Your task to perform on an android device: Add razer deathadder to the cart on costco, then select checkout. Image 0: 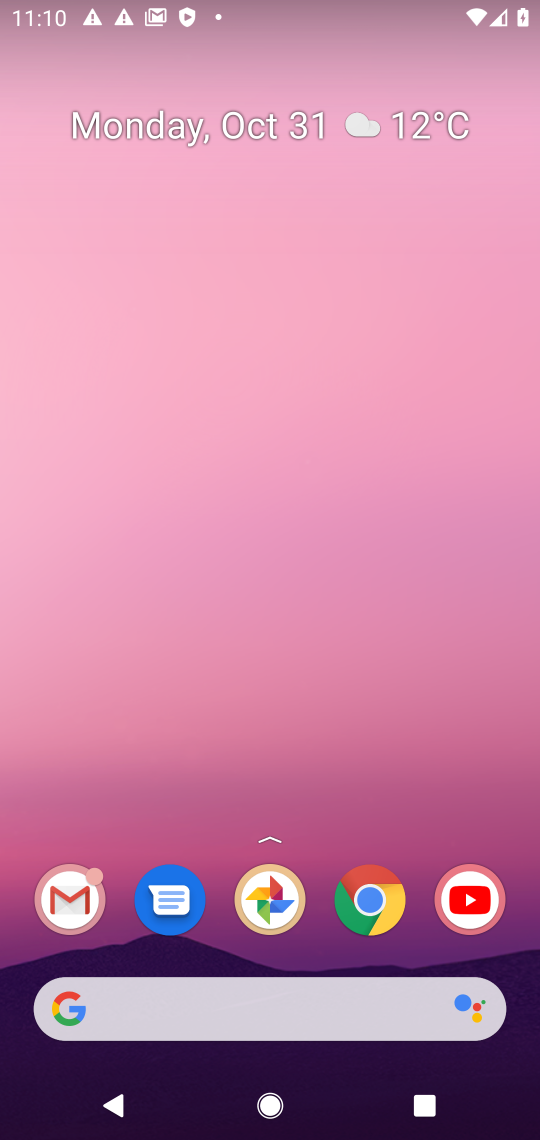
Step 0: click (266, 1004)
Your task to perform on an android device: Add razer deathadder to the cart on costco, then select checkout. Image 1: 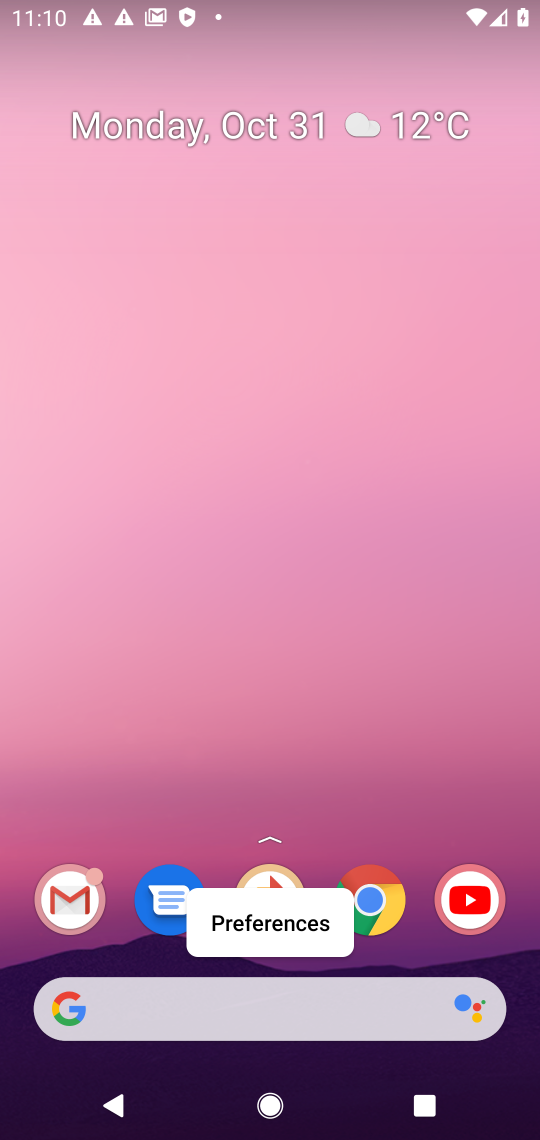
Step 1: click (266, 1004)
Your task to perform on an android device: Add razer deathadder to the cart on costco, then select checkout. Image 2: 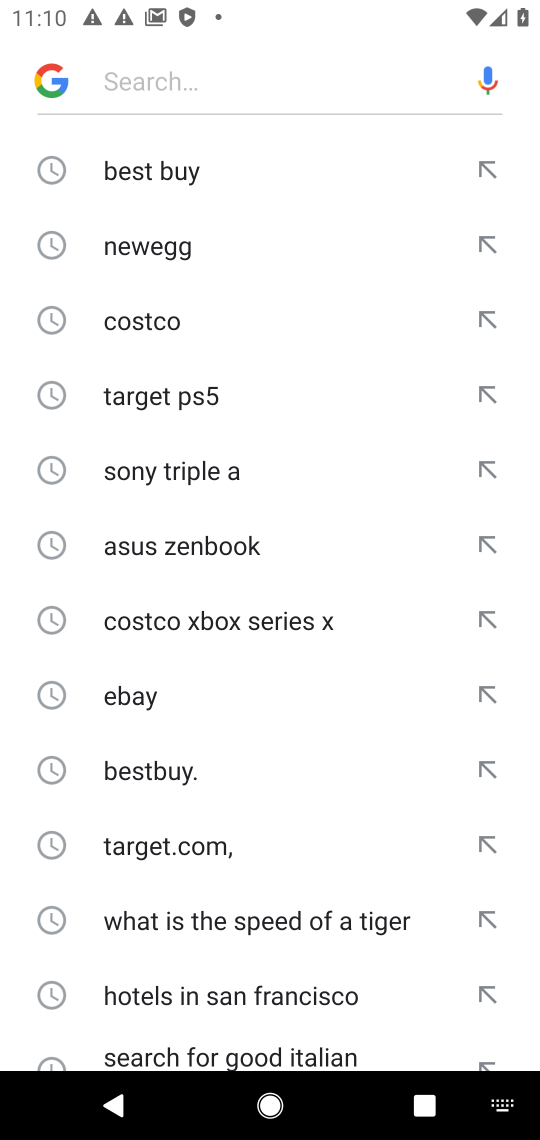
Step 2: click (163, 323)
Your task to perform on an android device: Add razer deathadder to the cart on costco, then select checkout. Image 3: 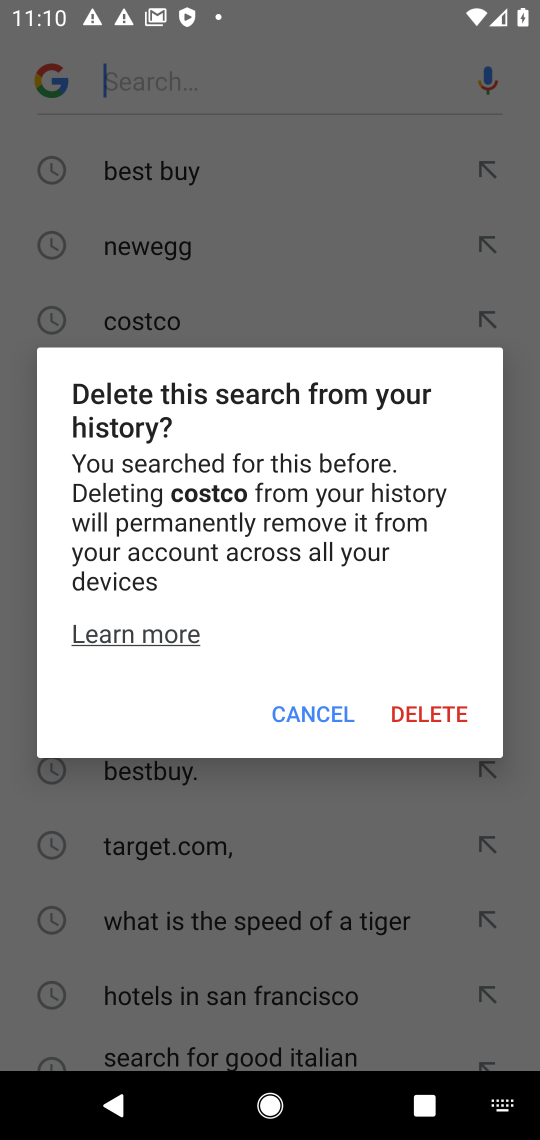
Step 3: click (332, 706)
Your task to perform on an android device: Add razer deathadder to the cart on costco, then select checkout. Image 4: 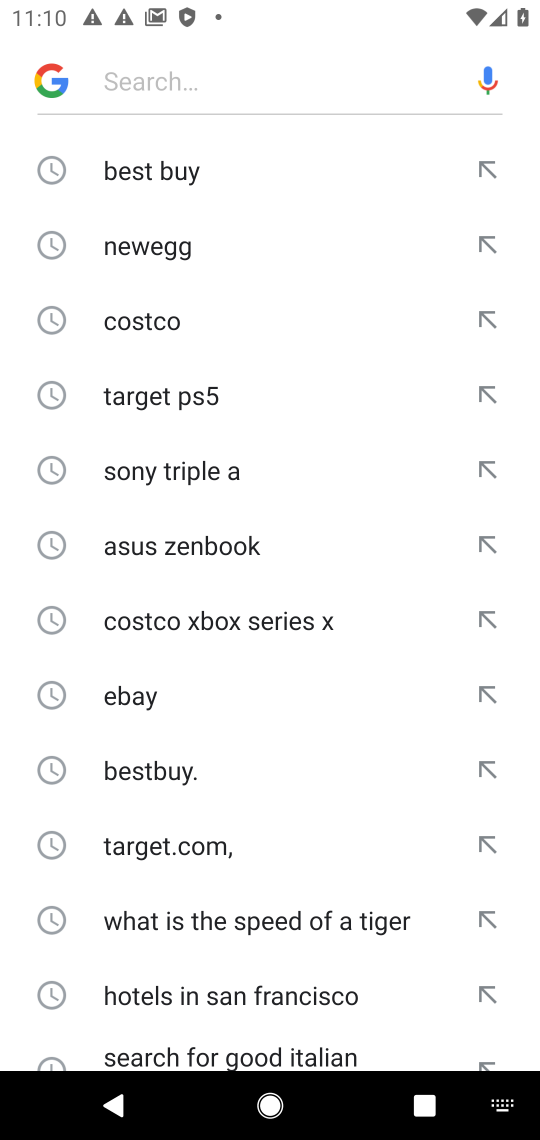
Step 4: click (138, 339)
Your task to perform on an android device: Add razer deathadder to the cart on costco, then select checkout. Image 5: 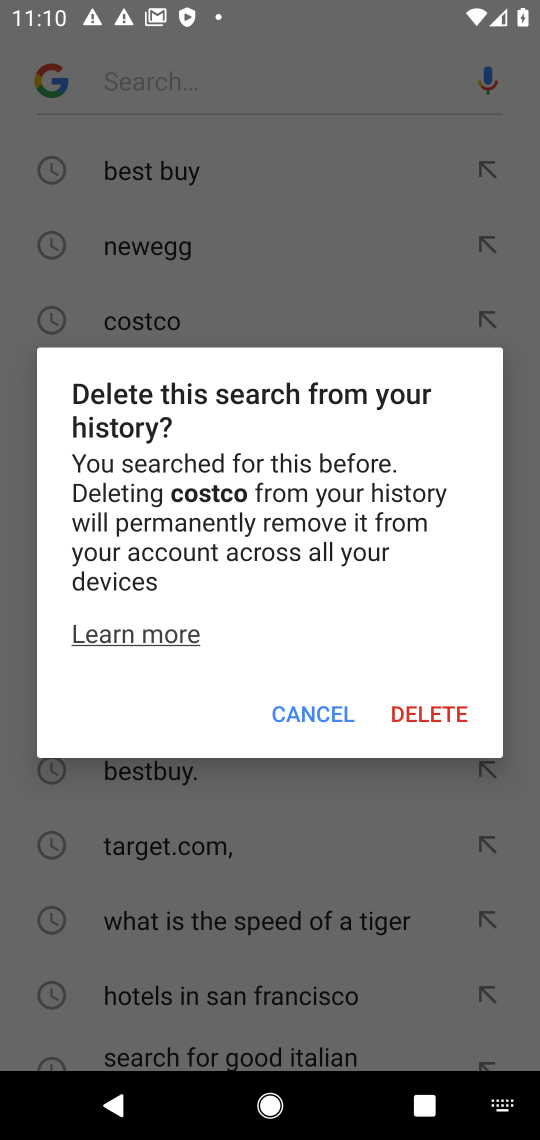
Step 5: click (333, 705)
Your task to perform on an android device: Add razer deathadder to the cart on costco, then select checkout. Image 6: 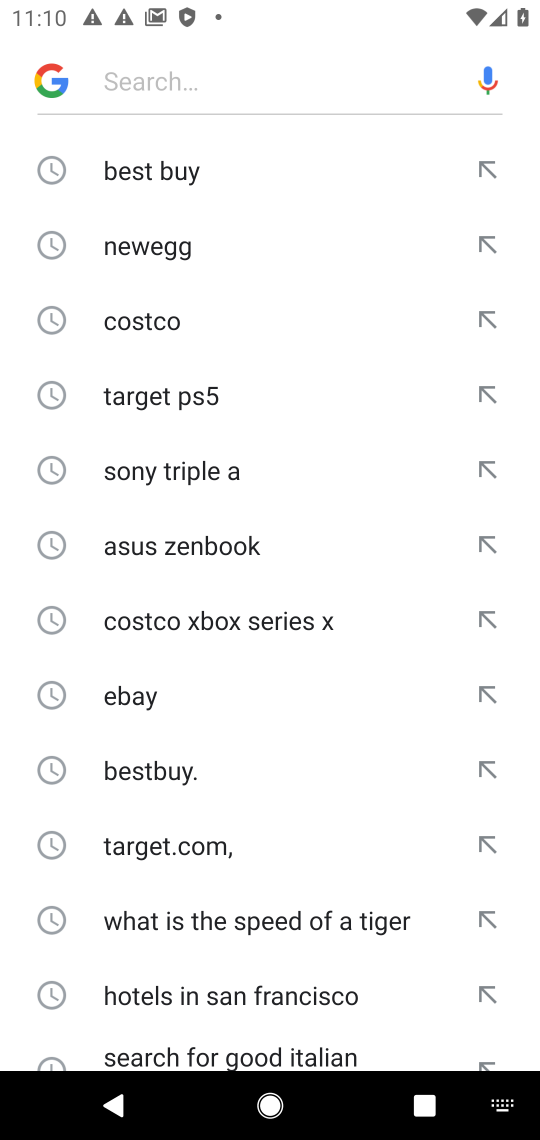
Step 6: click (174, 326)
Your task to perform on an android device: Add razer deathadder to the cart on costco, then select checkout. Image 7: 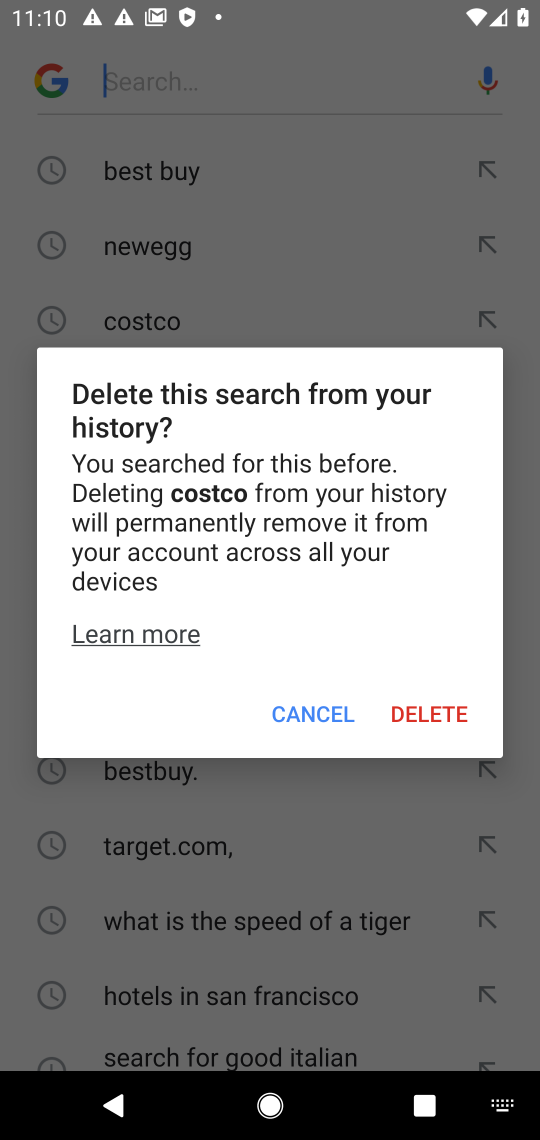
Step 7: click (316, 703)
Your task to perform on an android device: Add razer deathadder to the cart on costco, then select checkout. Image 8: 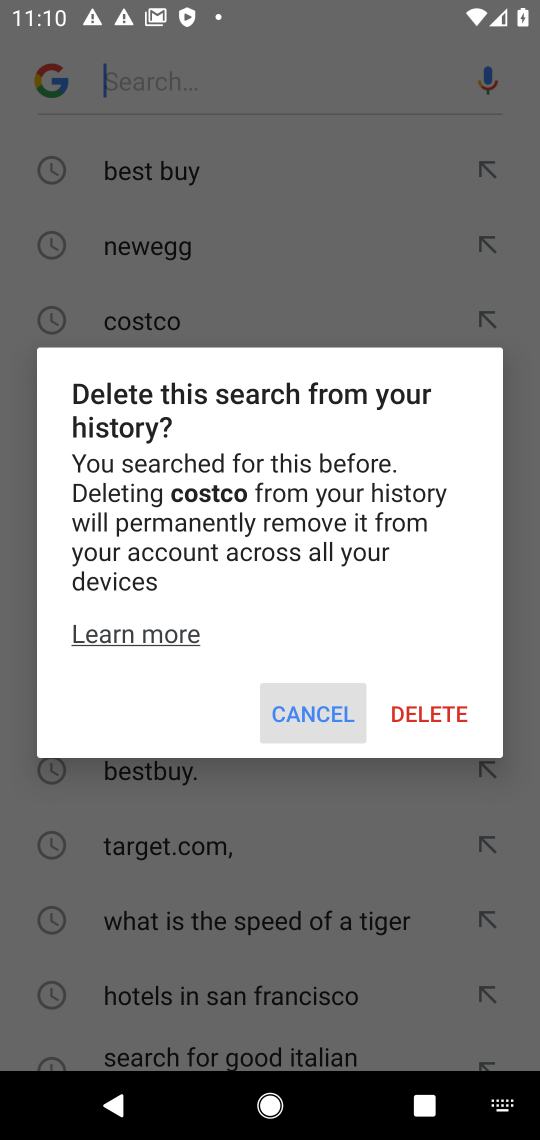
Step 8: click (315, 704)
Your task to perform on an android device: Add razer deathadder to the cart on costco, then select checkout. Image 9: 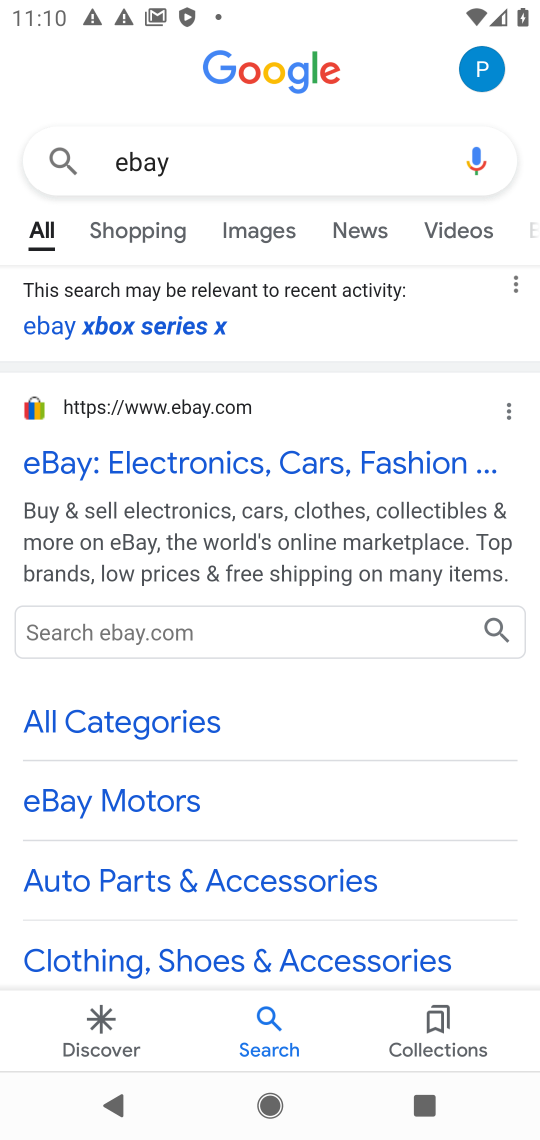
Step 9: click (280, 174)
Your task to perform on an android device: Add razer deathadder to the cart on costco, then select checkout. Image 10: 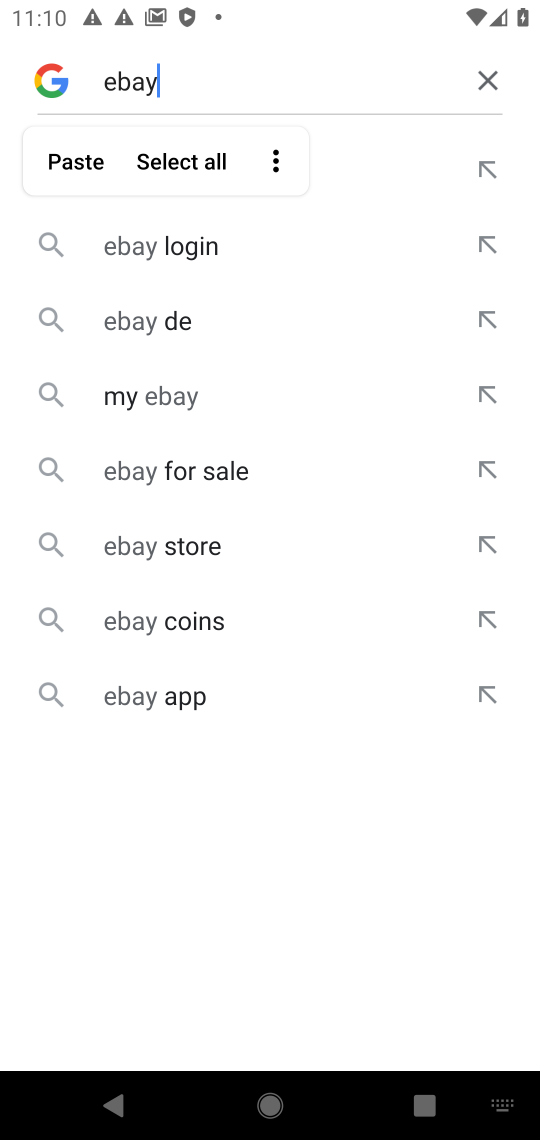
Step 10: click (494, 79)
Your task to perform on an android device: Add razer deathadder to the cart on costco, then select checkout. Image 11: 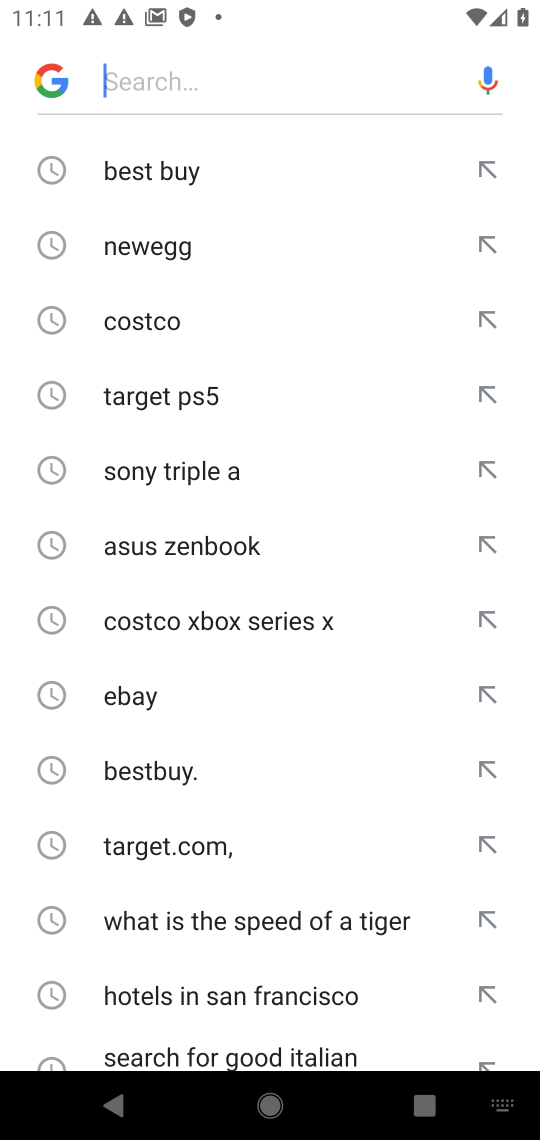
Step 11: click (133, 314)
Your task to perform on an android device: Add razer deathadder to the cart on costco, then select checkout. Image 12: 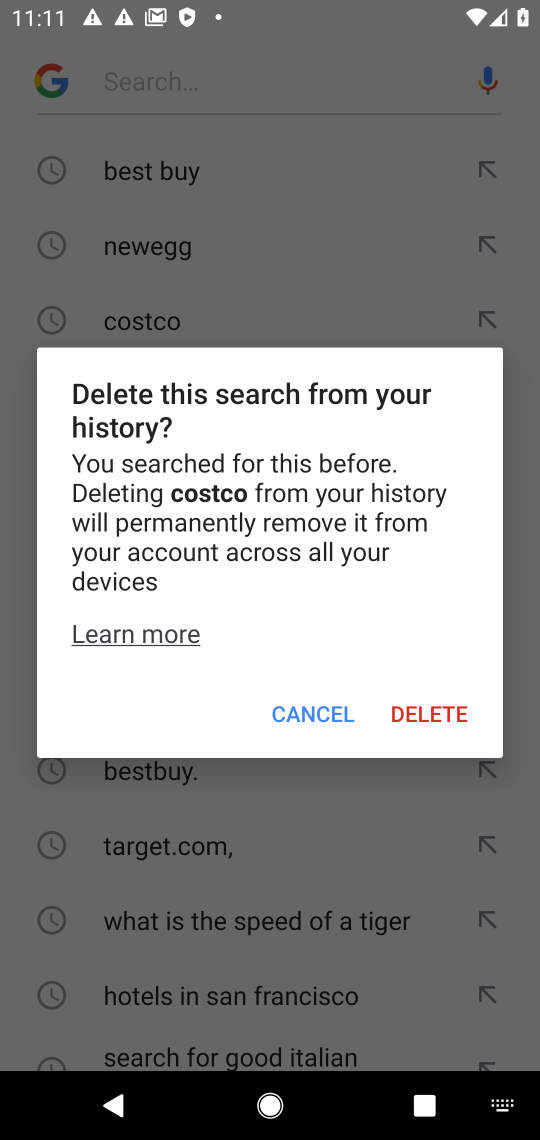
Step 12: click (331, 703)
Your task to perform on an android device: Add razer deathadder to the cart on costco, then select checkout. Image 13: 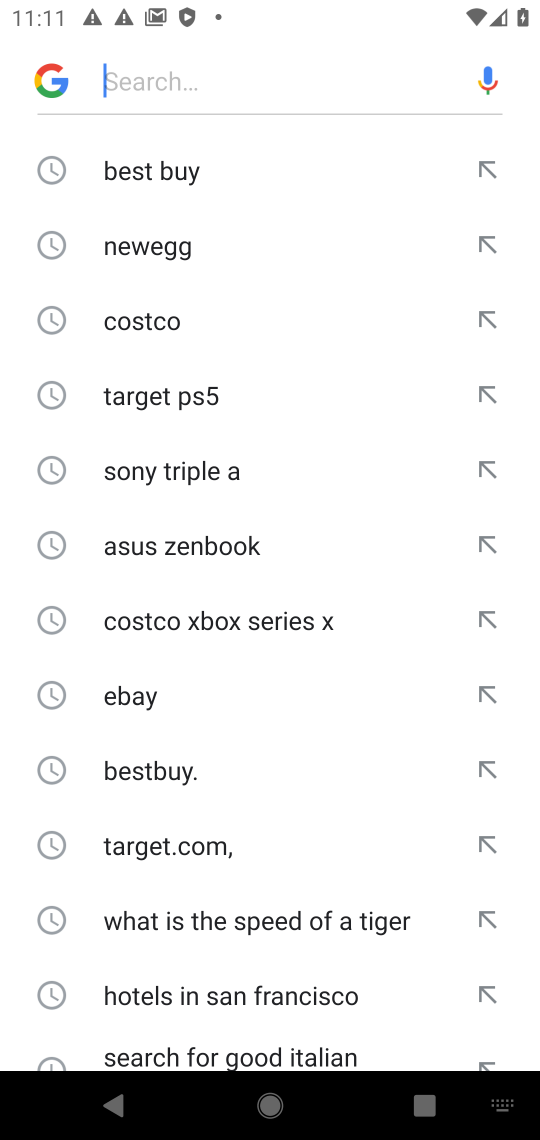
Step 13: click (137, 315)
Your task to perform on an android device: Add razer deathadder to the cart on costco, then select checkout. Image 14: 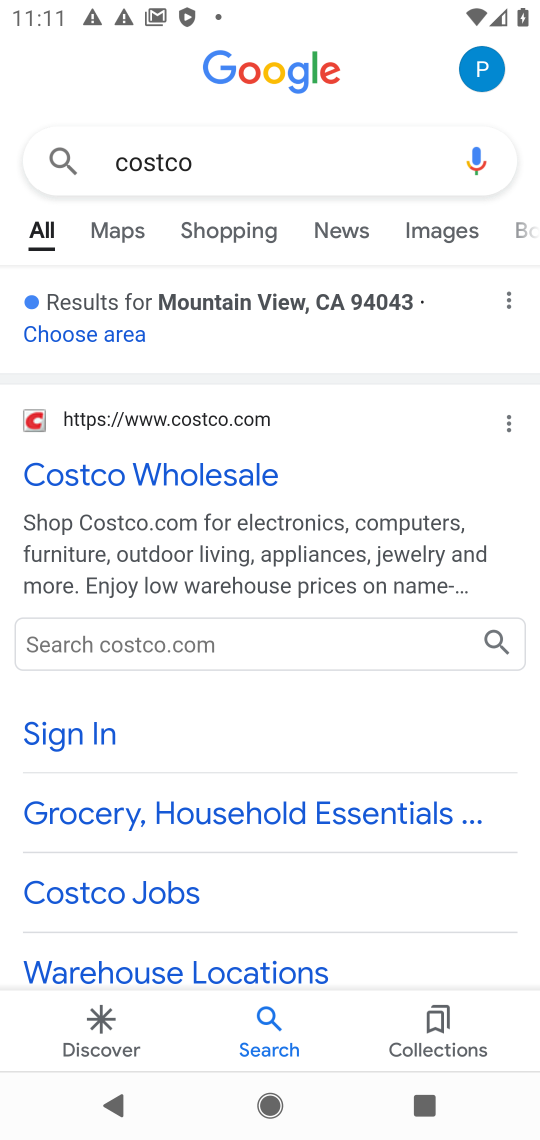
Step 14: click (149, 470)
Your task to perform on an android device: Add razer deathadder to the cart on costco, then select checkout. Image 15: 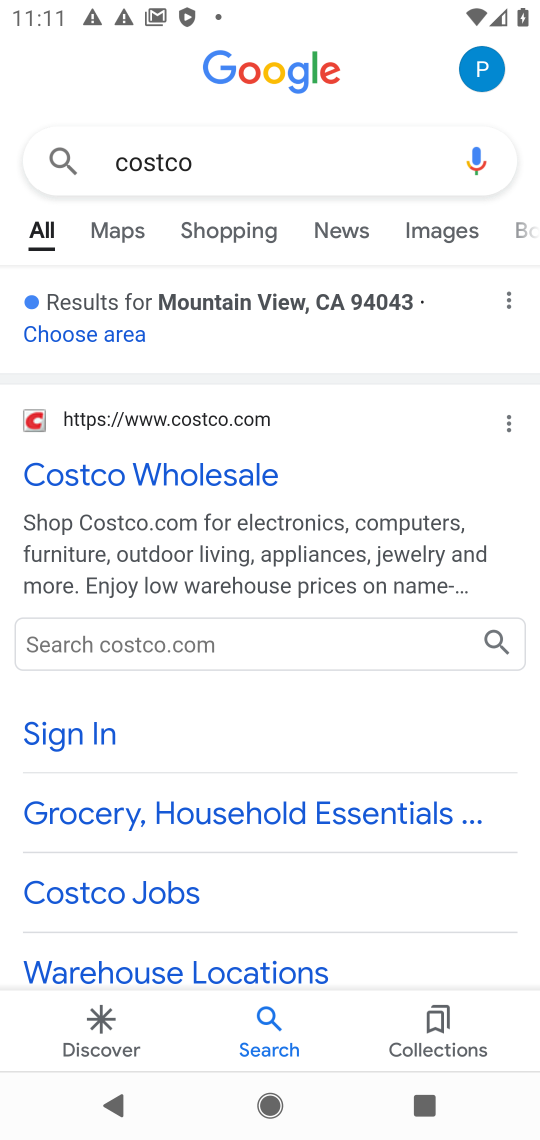
Step 15: click (153, 461)
Your task to perform on an android device: Add razer deathadder to the cart on costco, then select checkout. Image 16: 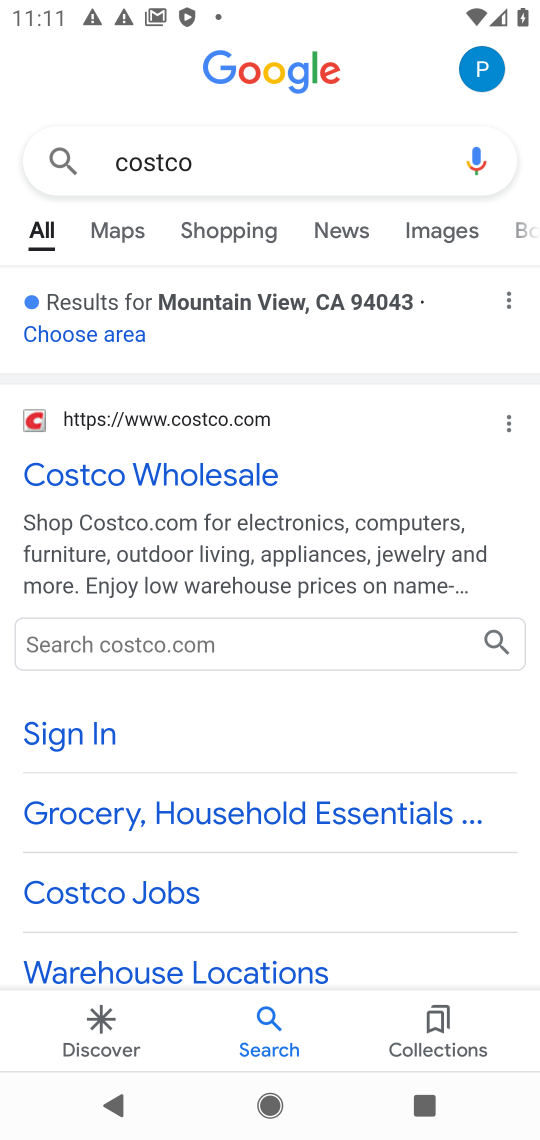
Step 16: click (153, 463)
Your task to perform on an android device: Add razer deathadder to the cart on costco, then select checkout. Image 17: 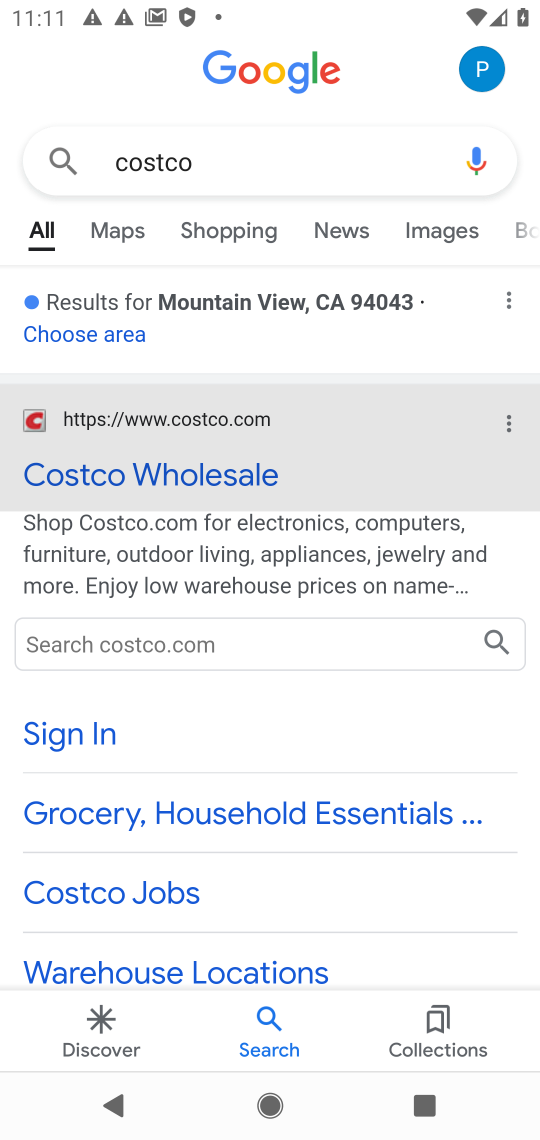
Step 17: click (155, 471)
Your task to perform on an android device: Add razer deathadder to the cart on costco, then select checkout. Image 18: 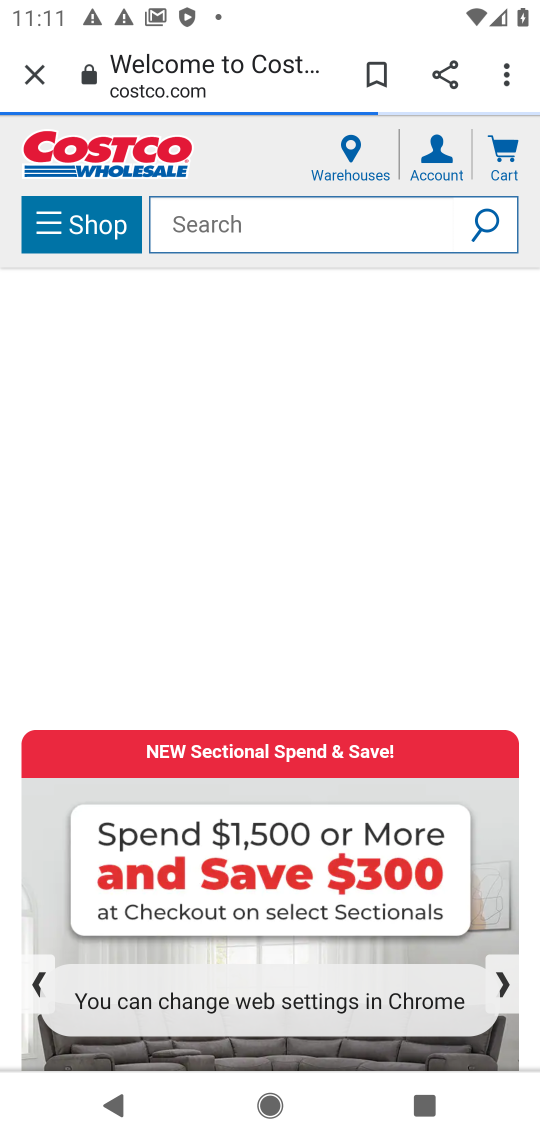
Step 18: click (155, 471)
Your task to perform on an android device: Add razer deathadder to the cart on costco, then select checkout. Image 19: 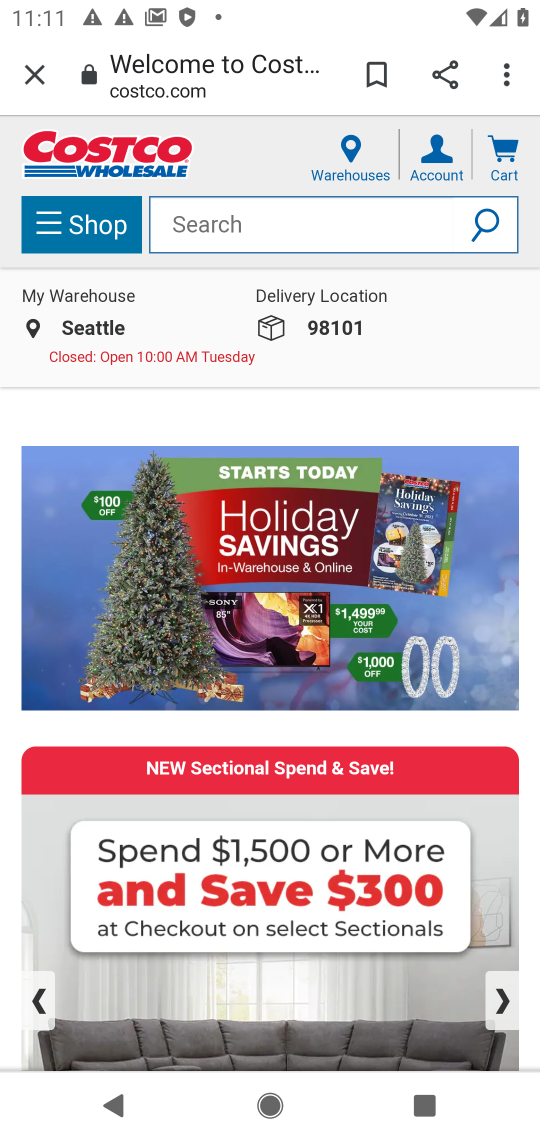
Step 19: click (285, 231)
Your task to perform on an android device: Add razer deathadder to the cart on costco, then select checkout. Image 20: 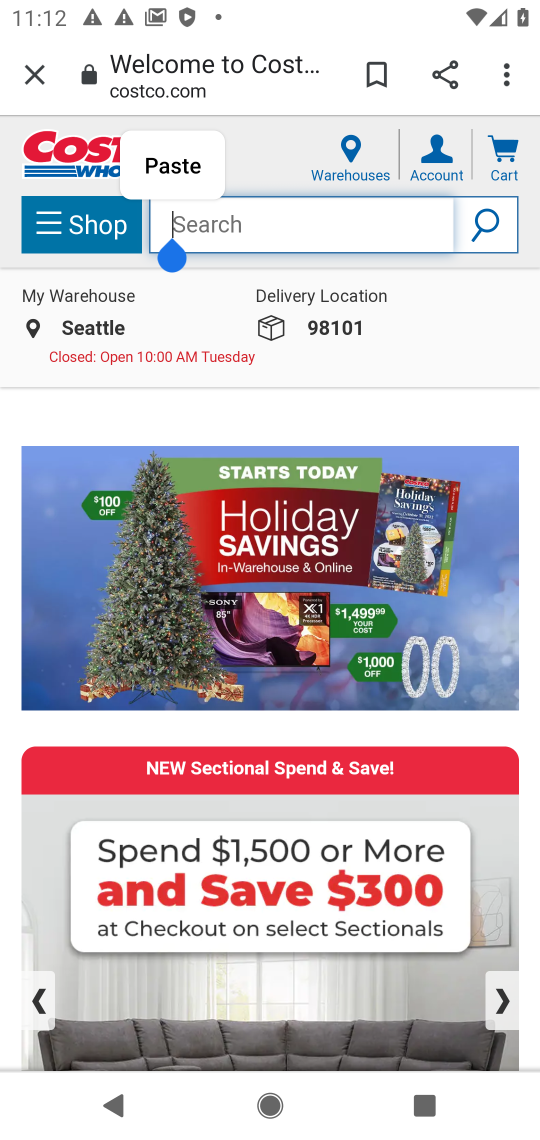
Step 20: type "razer deathadder"
Your task to perform on an android device: Add razer deathadder to the cart on costco, then select checkout. Image 21: 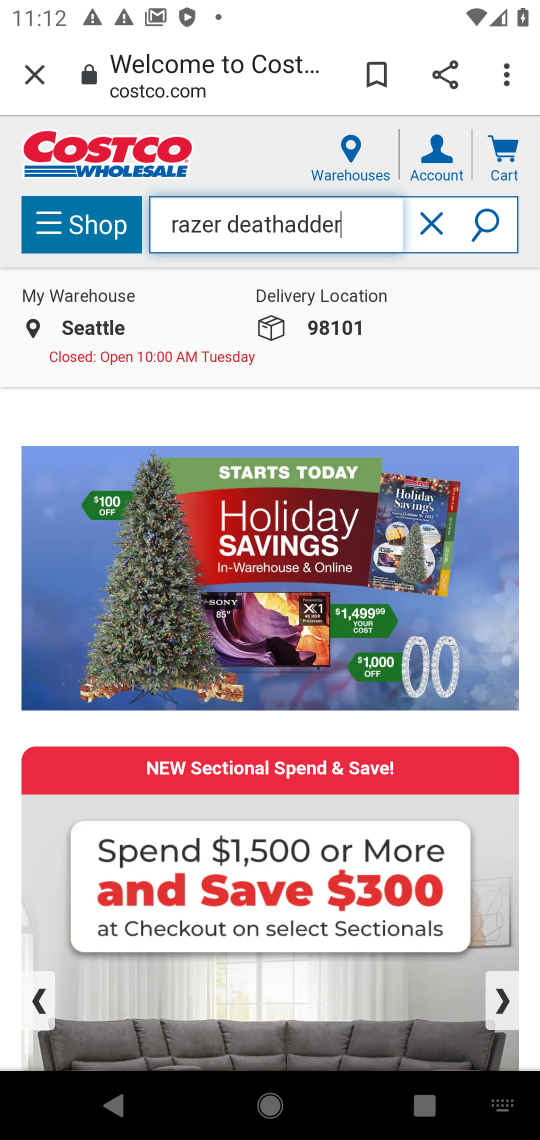
Step 21: type ""
Your task to perform on an android device: Add razer deathadder to the cart on costco, then select checkout. Image 22: 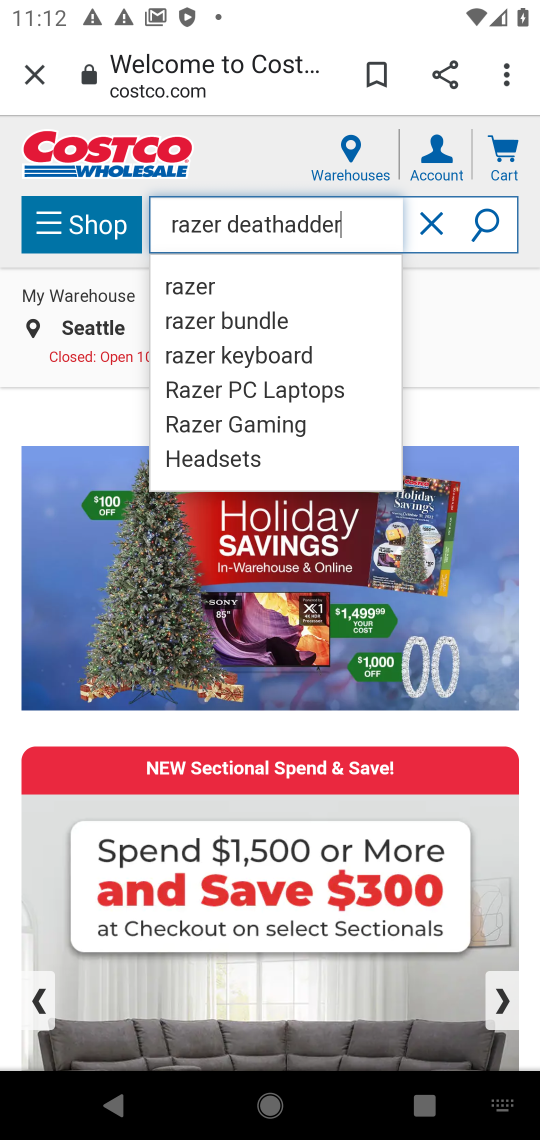
Step 22: press enter
Your task to perform on an android device: Add razer deathadder to the cart on costco, then select checkout. Image 23: 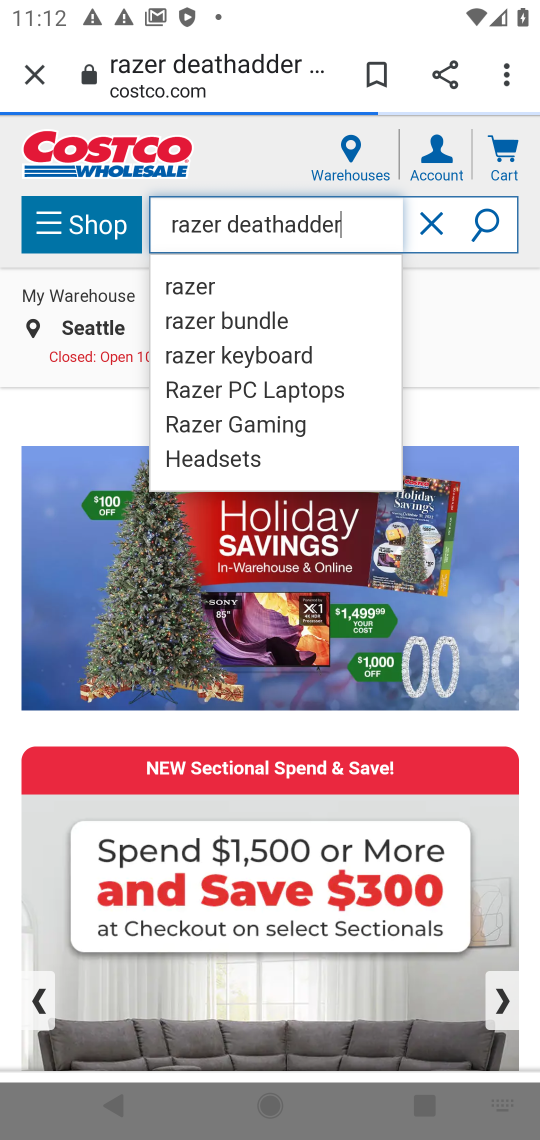
Step 23: press enter
Your task to perform on an android device: Add razer deathadder to the cart on costco, then select checkout. Image 24: 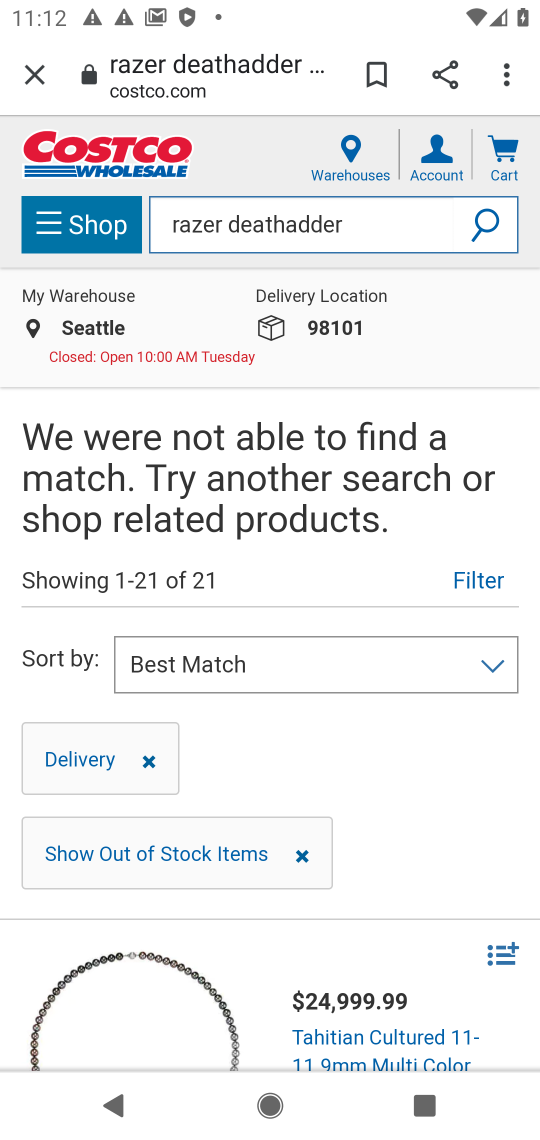
Step 24: click (486, 229)
Your task to perform on an android device: Add razer deathadder to the cart on costco, then select checkout. Image 25: 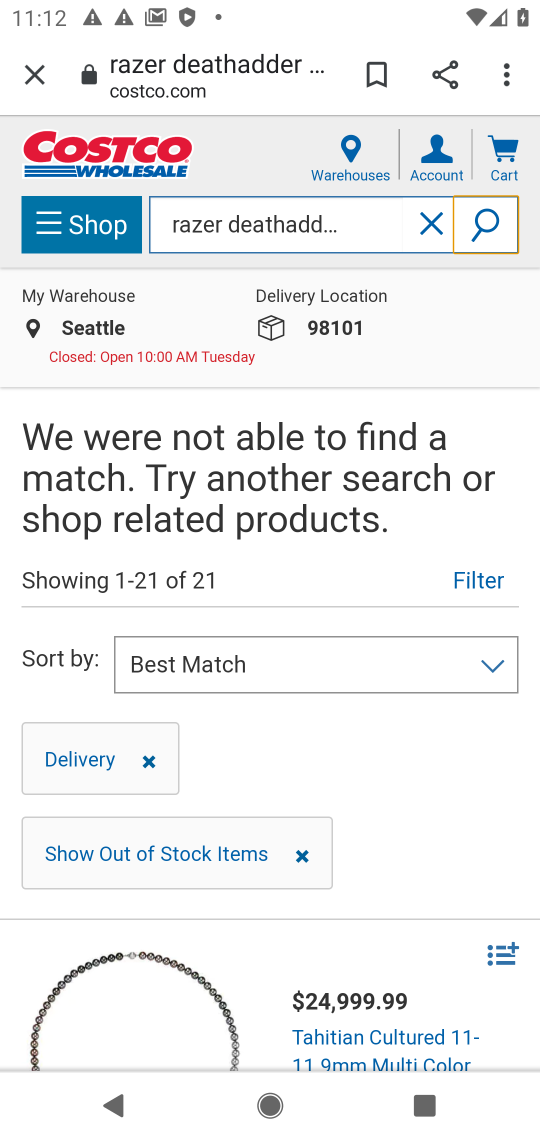
Step 25: click (486, 229)
Your task to perform on an android device: Add razer deathadder to the cart on costco, then select checkout. Image 26: 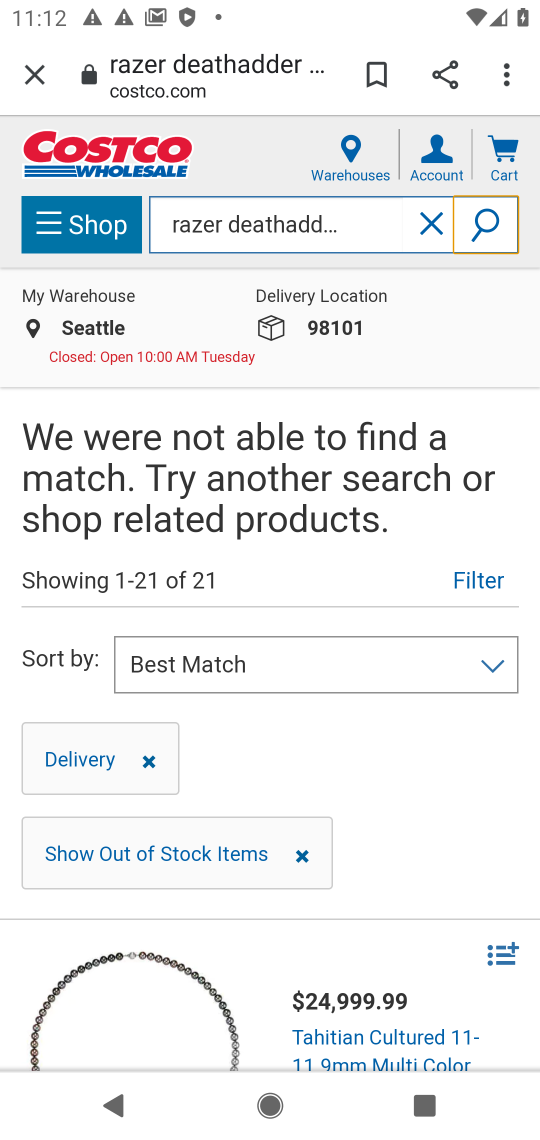
Step 26: click (483, 229)
Your task to perform on an android device: Add razer deathadder to the cart on costco, then select checkout. Image 27: 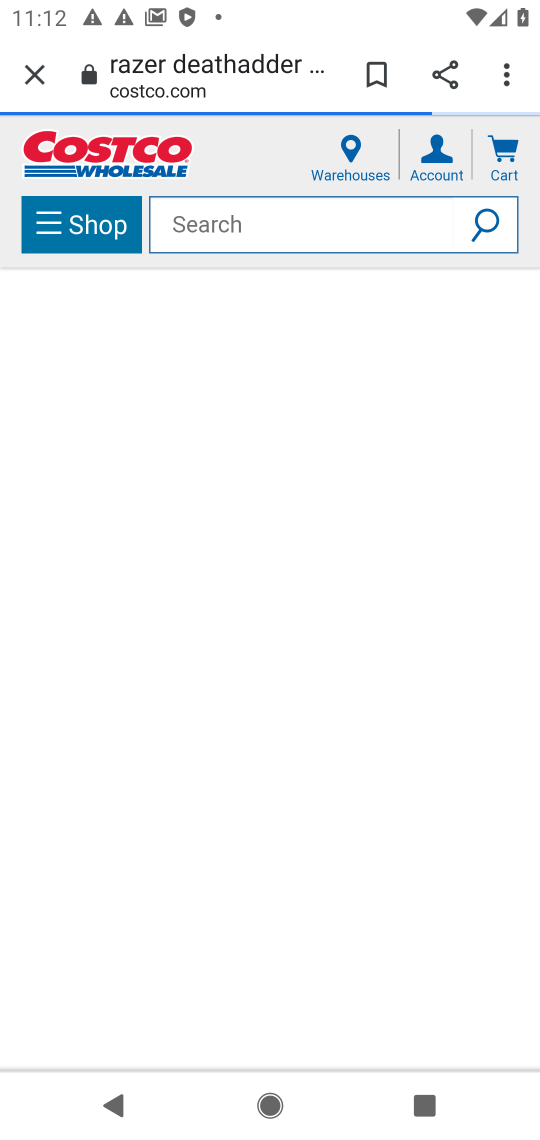
Step 27: drag from (432, 841) to (398, 528)
Your task to perform on an android device: Add razer deathadder to the cart on costco, then select checkout. Image 28: 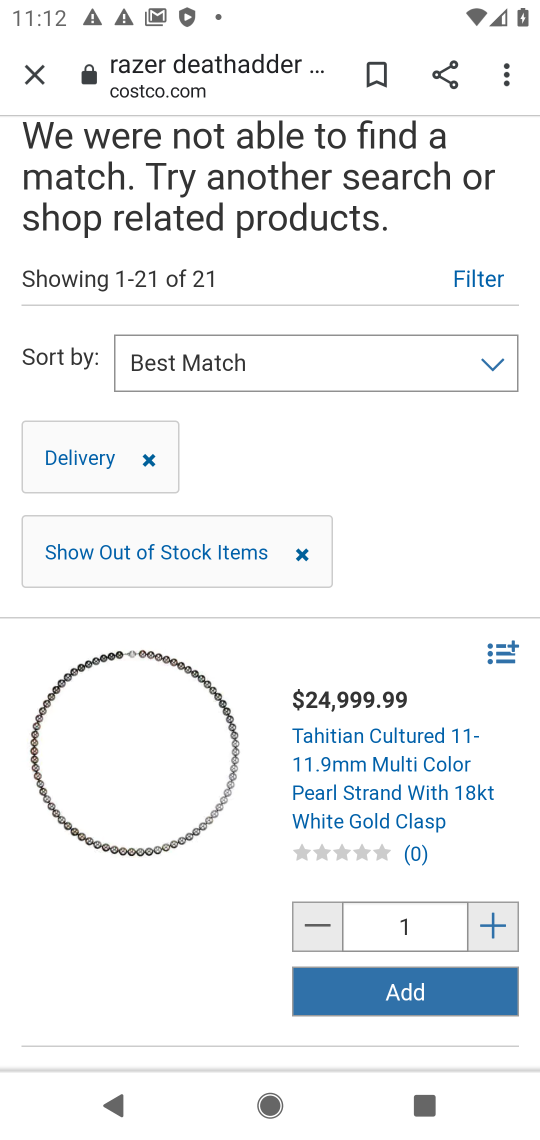
Step 28: click (327, 931)
Your task to perform on an android device: Add razer deathadder to the cart on costco, then select checkout. Image 29: 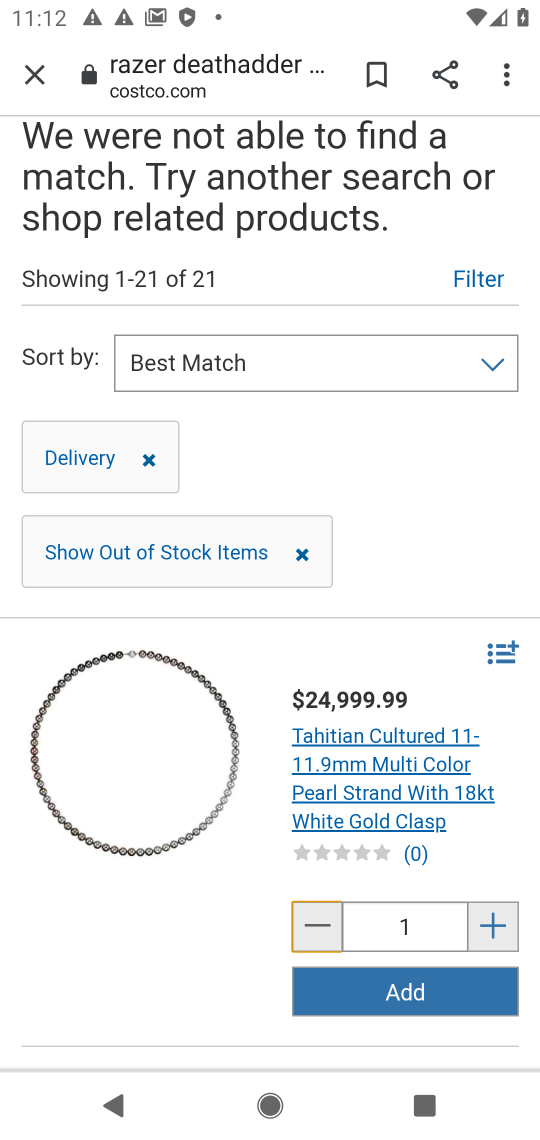
Step 29: click (327, 925)
Your task to perform on an android device: Add razer deathadder to the cart on costco, then select checkout. Image 30: 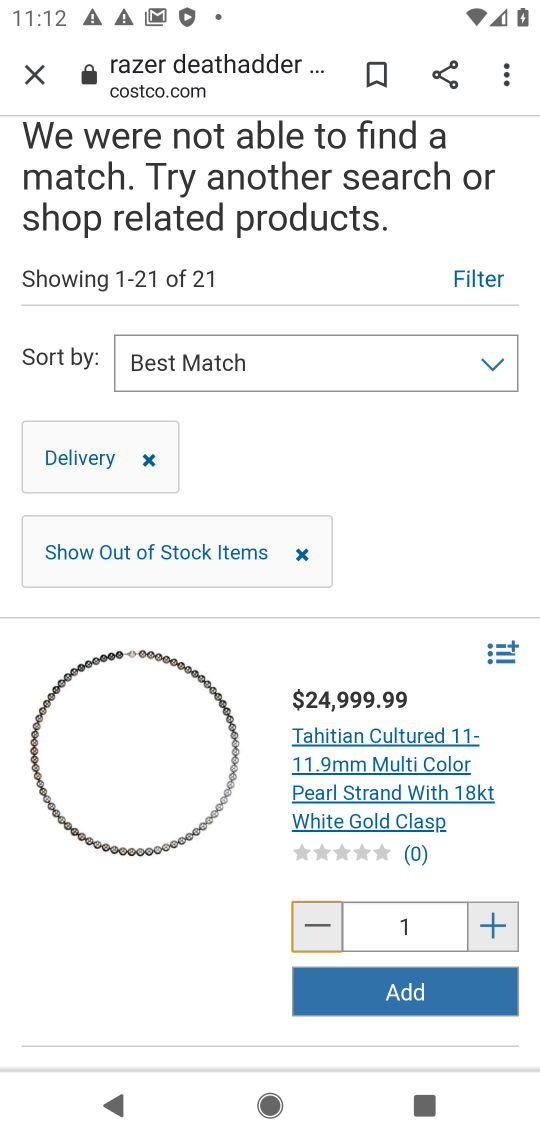
Step 30: click (317, 920)
Your task to perform on an android device: Add razer deathadder to the cart on costco, then select checkout. Image 31: 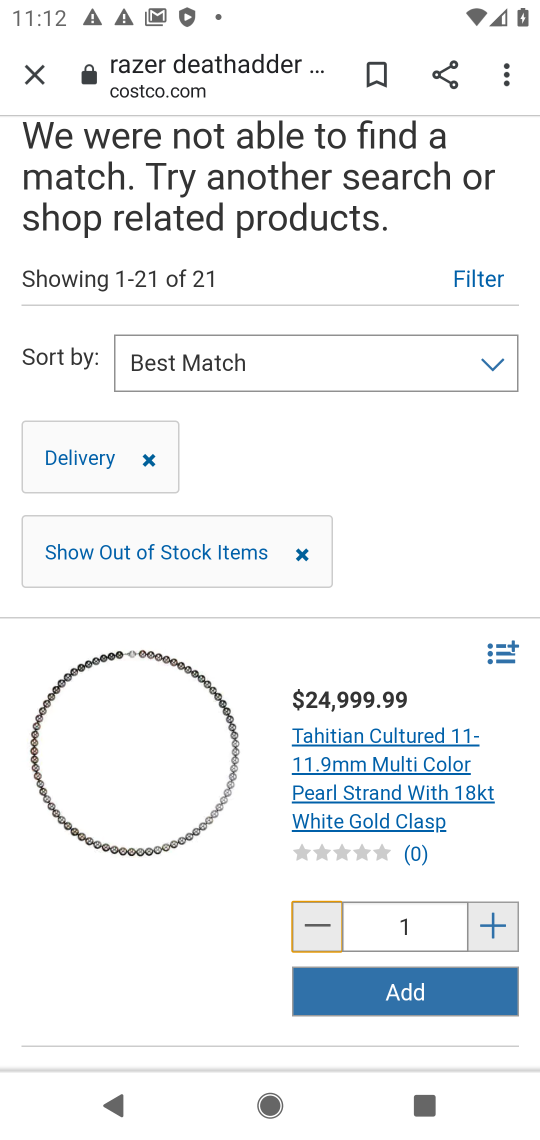
Step 31: click (323, 920)
Your task to perform on an android device: Add razer deathadder to the cart on costco, then select checkout. Image 32: 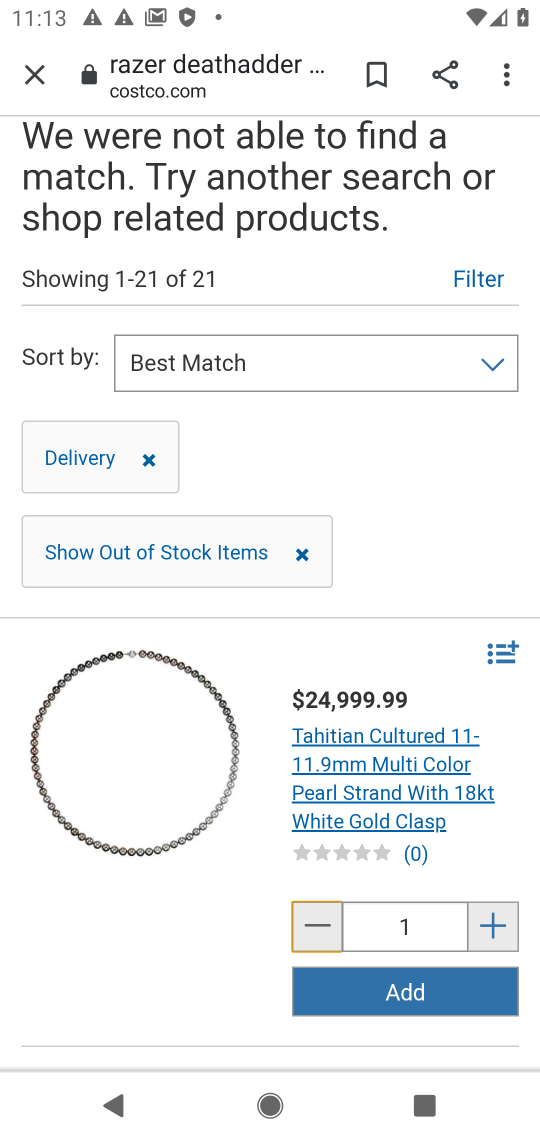
Step 32: drag from (402, 647) to (382, 1114)
Your task to perform on an android device: Add razer deathadder to the cart on costco, then select checkout. Image 33: 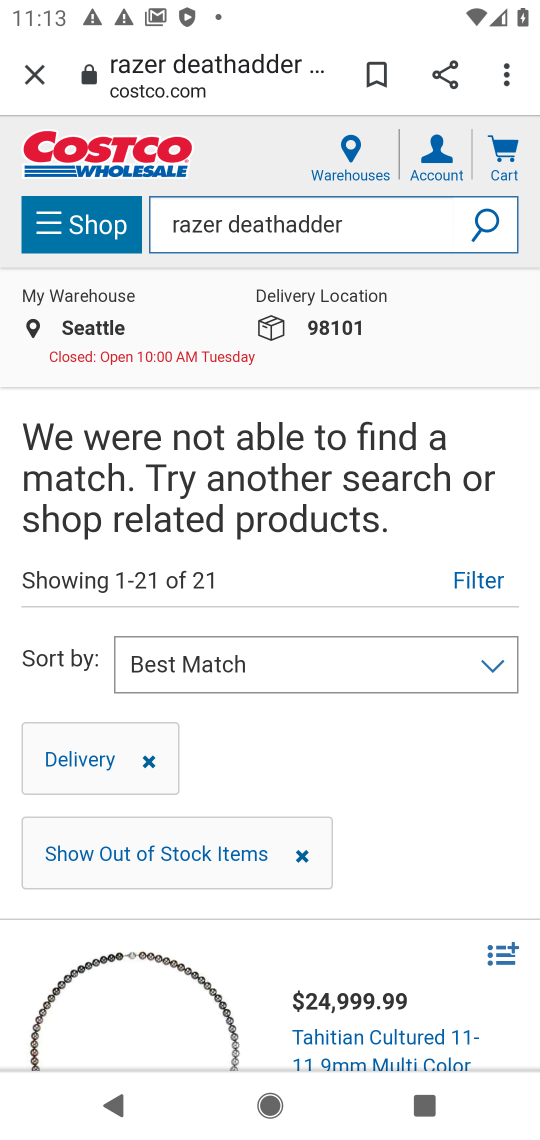
Step 33: click (54, 226)
Your task to perform on an android device: Add razer deathadder to the cart on costco, then select checkout. Image 34: 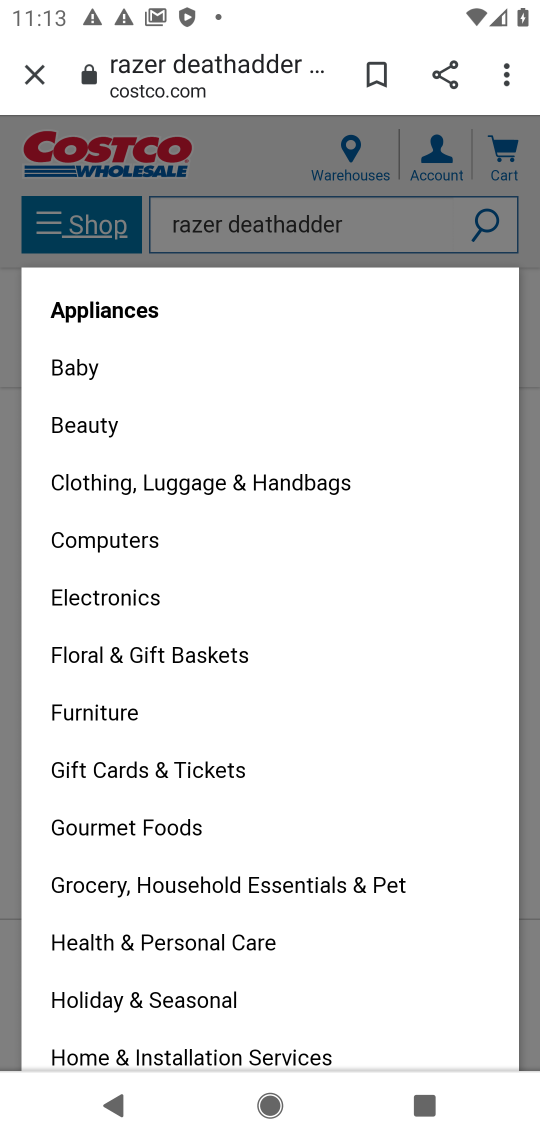
Step 34: click (75, 365)
Your task to perform on an android device: Add razer deathadder to the cart on costco, then select checkout. Image 35: 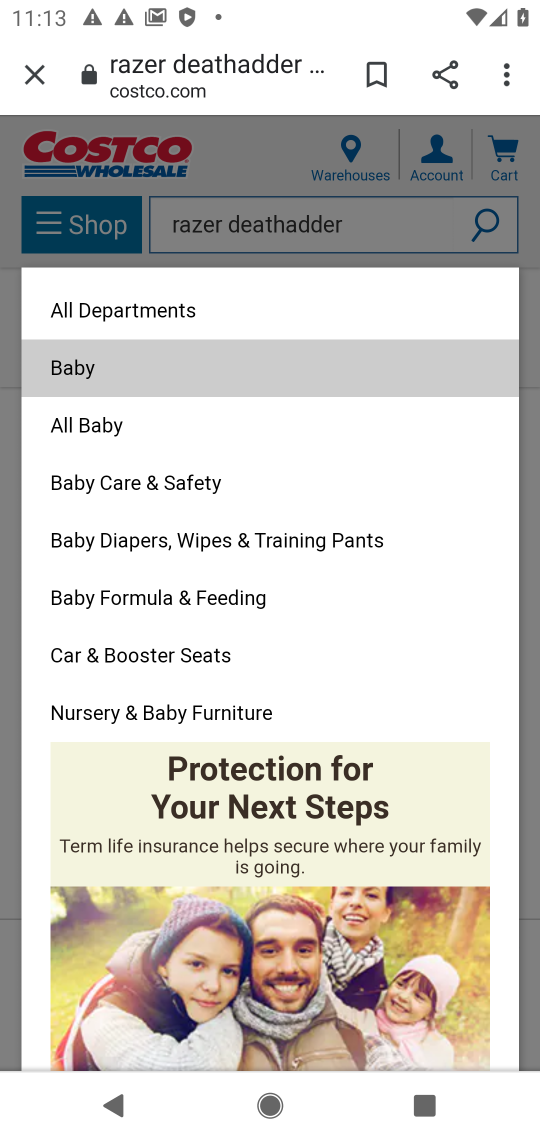
Step 35: click (75, 365)
Your task to perform on an android device: Add razer deathadder to the cart on costco, then select checkout. Image 36: 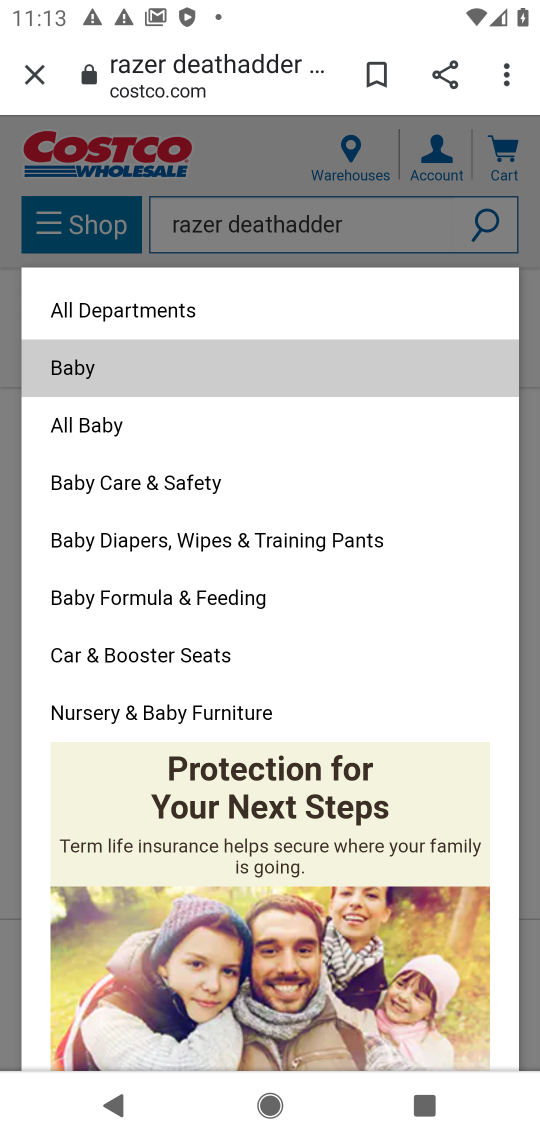
Step 36: click (75, 365)
Your task to perform on an android device: Add razer deathadder to the cart on costco, then select checkout. Image 37: 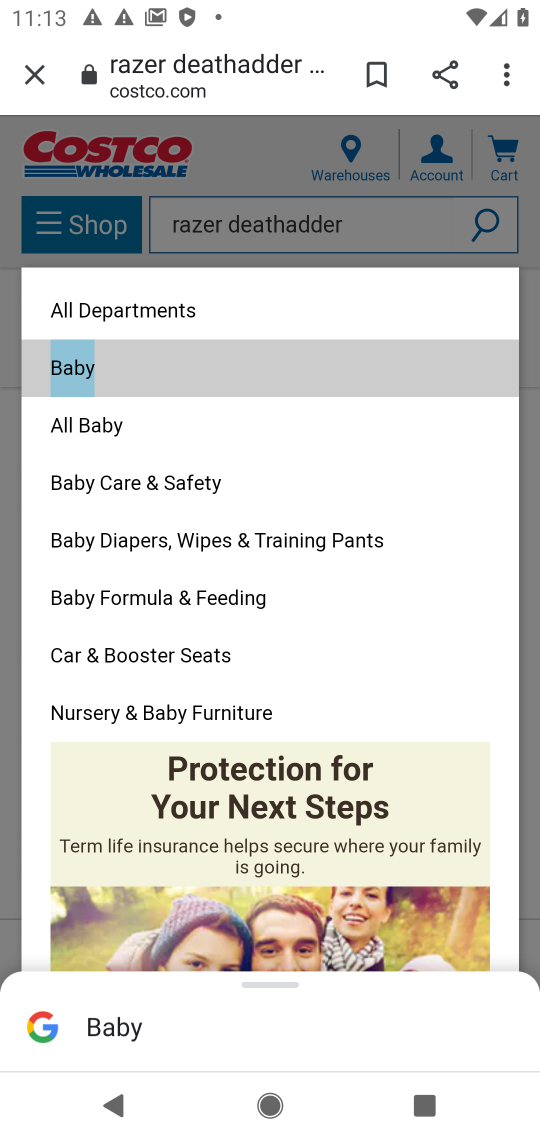
Step 37: click (68, 361)
Your task to perform on an android device: Add razer deathadder to the cart on costco, then select checkout. Image 38: 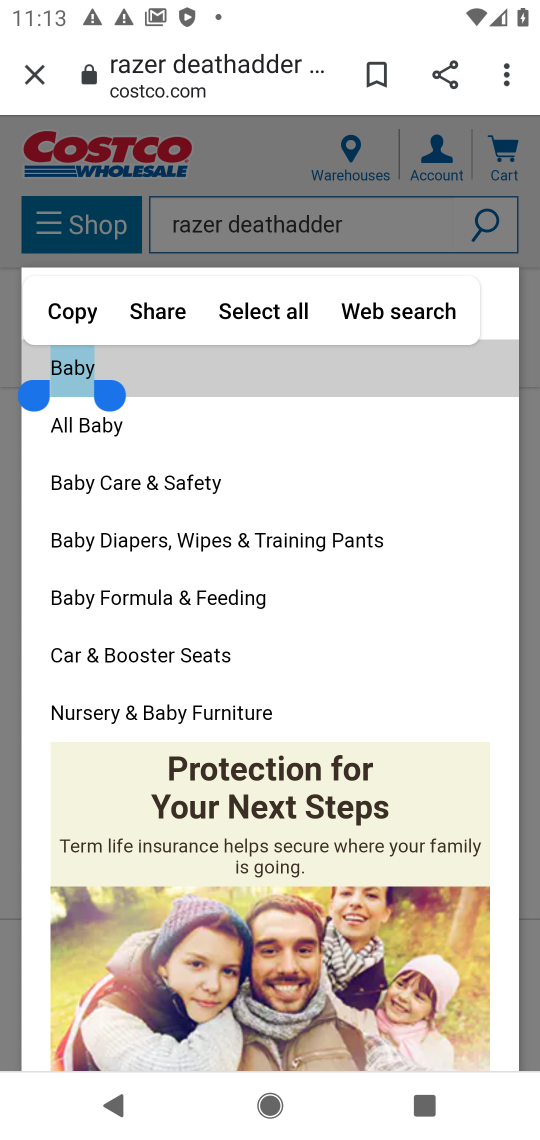
Step 38: click (73, 424)
Your task to perform on an android device: Add razer deathadder to the cart on costco, then select checkout. Image 39: 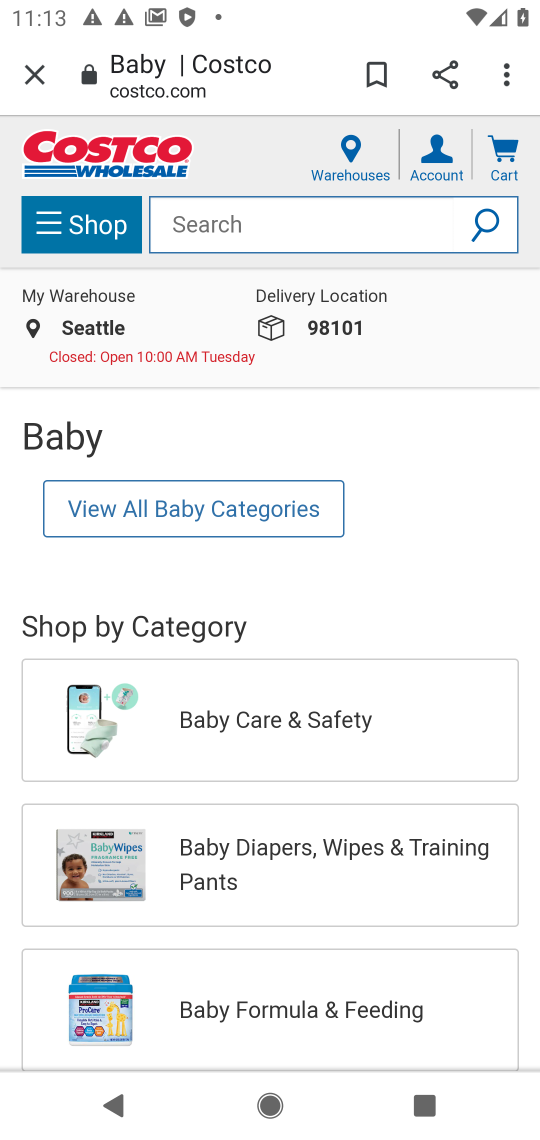
Step 39: click (53, 224)
Your task to perform on an android device: Add razer deathadder to the cart on costco, then select checkout. Image 40: 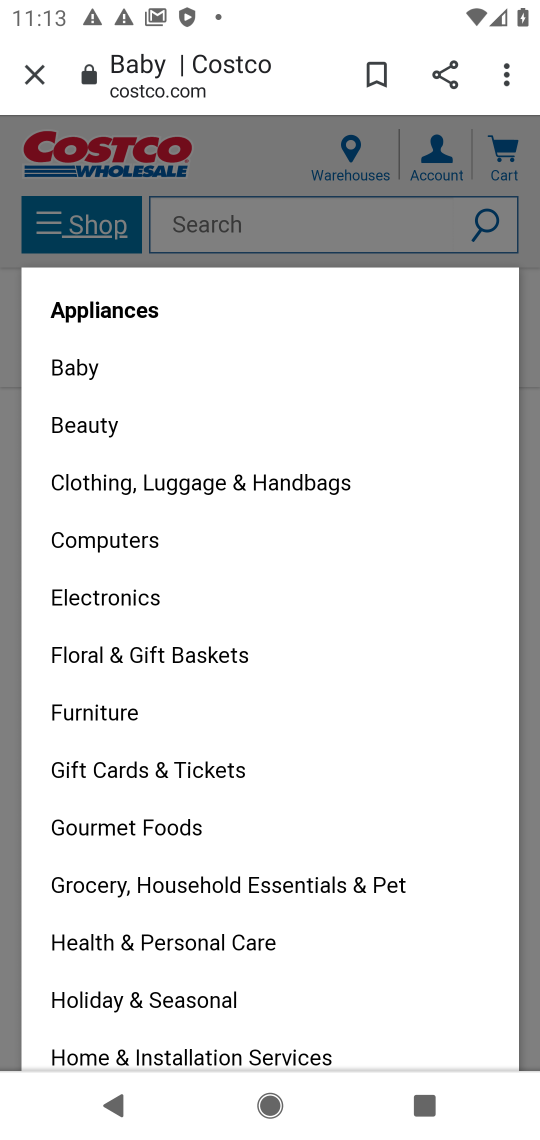
Step 40: click (140, 601)
Your task to perform on an android device: Add razer deathadder to the cart on costco, then select checkout. Image 41: 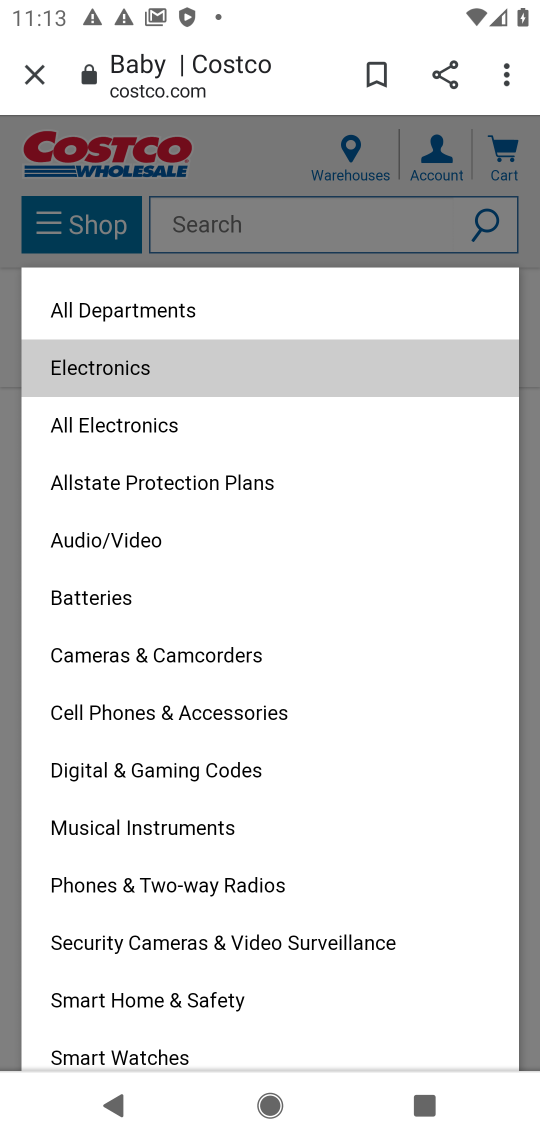
Step 41: click (105, 366)
Your task to perform on an android device: Add razer deathadder to the cart on costco, then select checkout. Image 42: 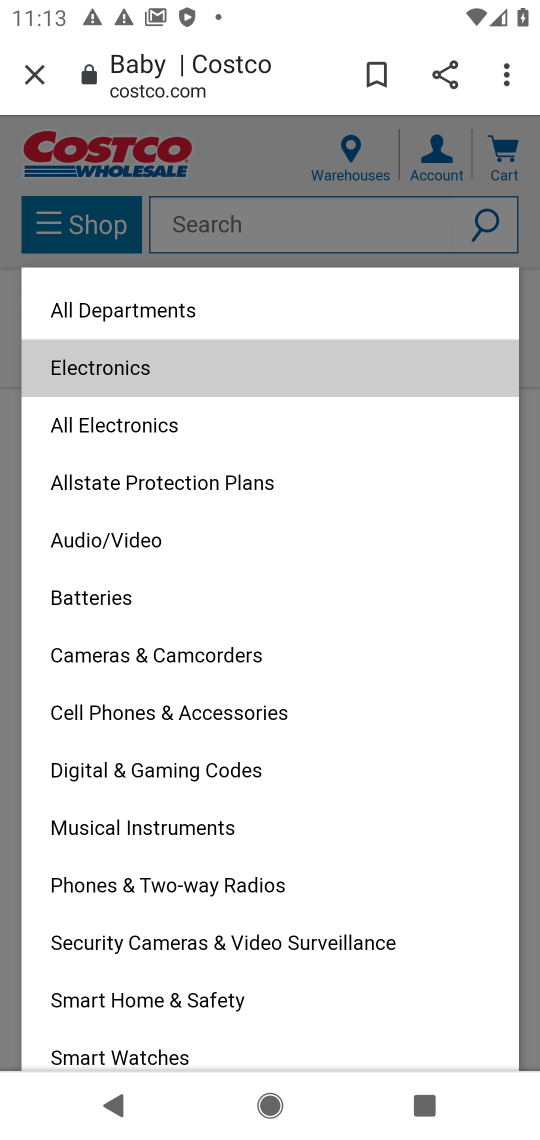
Step 42: click (104, 364)
Your task to perform on an android device: Add razer deathadder to the cart on costco, then select checkout. Image 43: 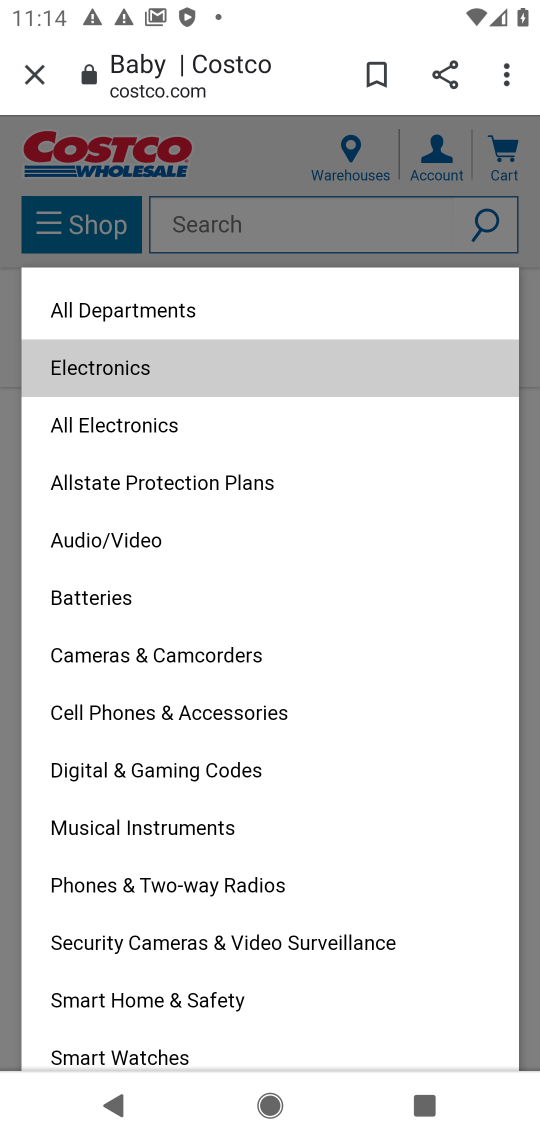
Step 43: click (110, 368)
Your task to perform on an android device: Add razer deathadder to the cart on costco, then select checkout. Image 44: 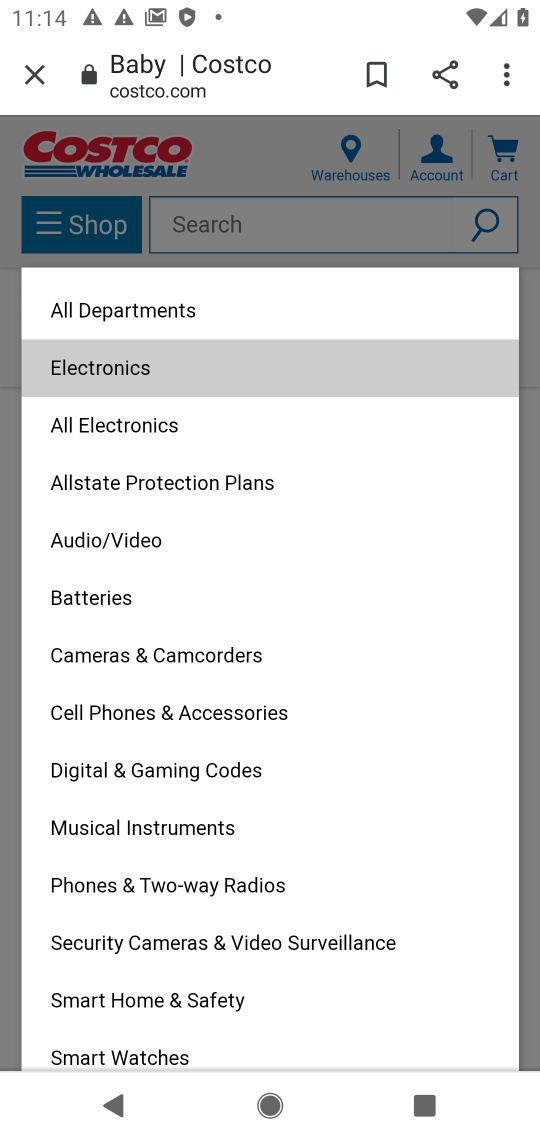
Step 44: click (110, 368)
Your task to perform on an android device: Add razer deathadder to the cart on costco, then select checkout. Image 45: 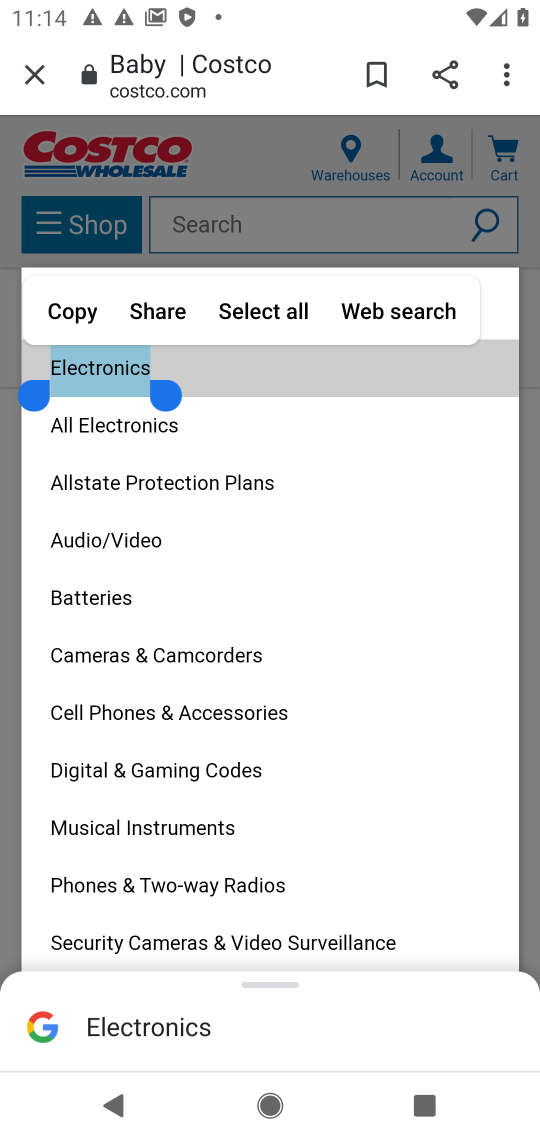
Step 45: click (107, 368)
Your task to perform on an android device: Add razer deathadder to the cart on costco, then select checkout. Image 46: 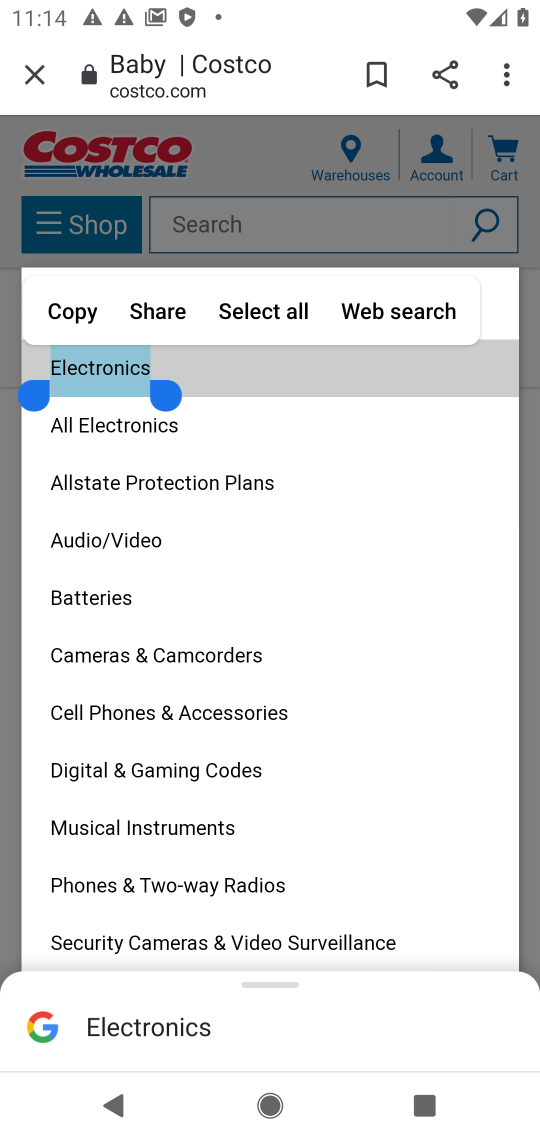
Step 46: click (107, 368)
Your task to perform on an android device: Add razer deathadder to the cart on costco, then select checkout. Image 47: 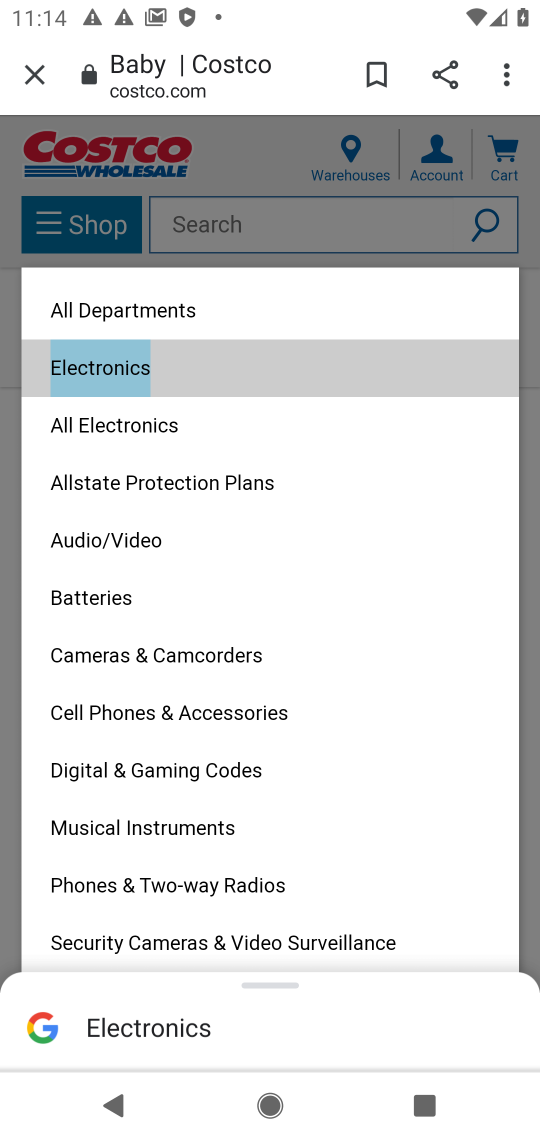
Step 47: click (209, 375)
Your task to perform on an android device: Add razer deathadder to the cart on costco, then select checkout. Image 48: 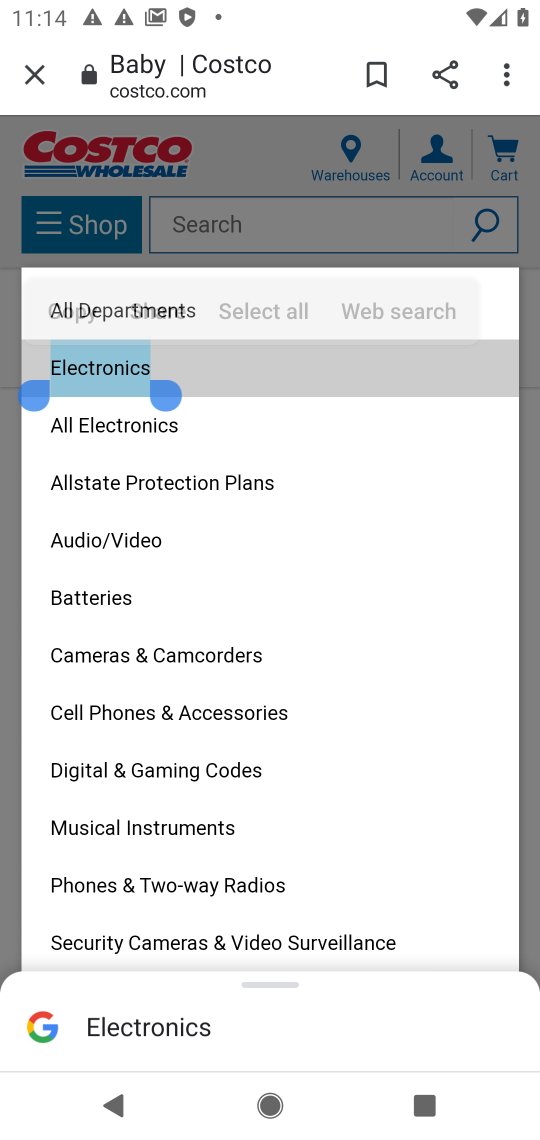
Step 48: click (209, 375)
Your task to perform on an android device: Add razer deathadder to the cart on costco, then select checkout. Image 49: 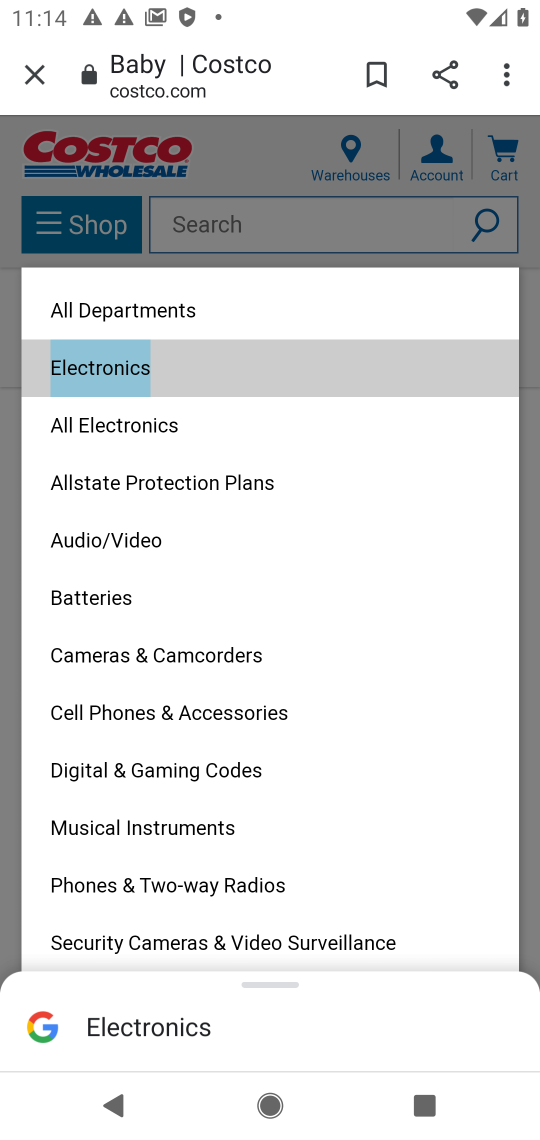
Step 49: click (203, 378)
Your task to perform on an android device: Add razer deathadder to the cart on costco, then select checkout. Image 50: 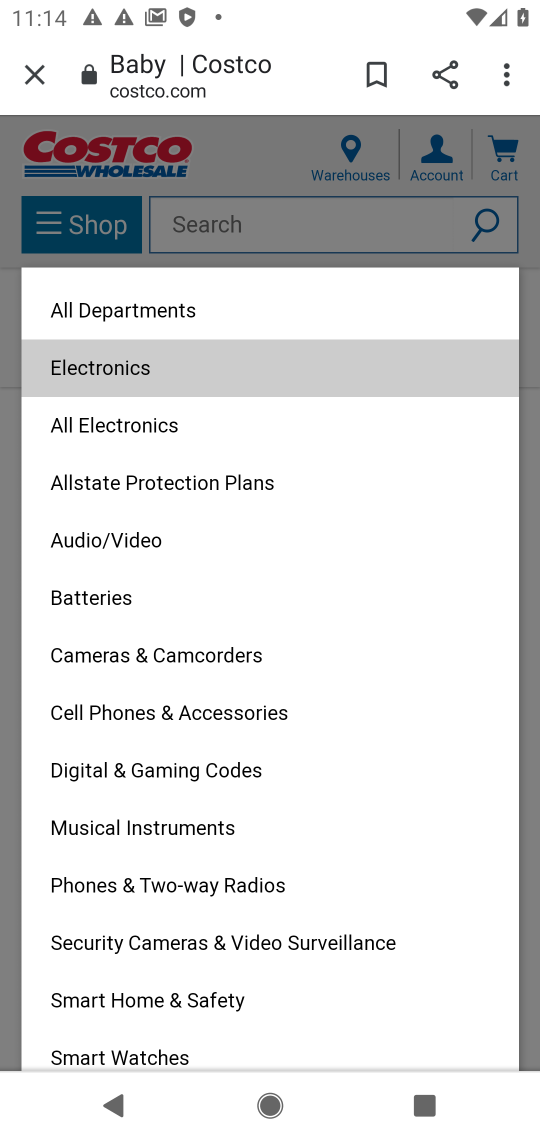
Step 50: click (210, 385)
Your task to perform on an android device: Add razer deathadder to the cart on costco, then select checkout. Image 51: 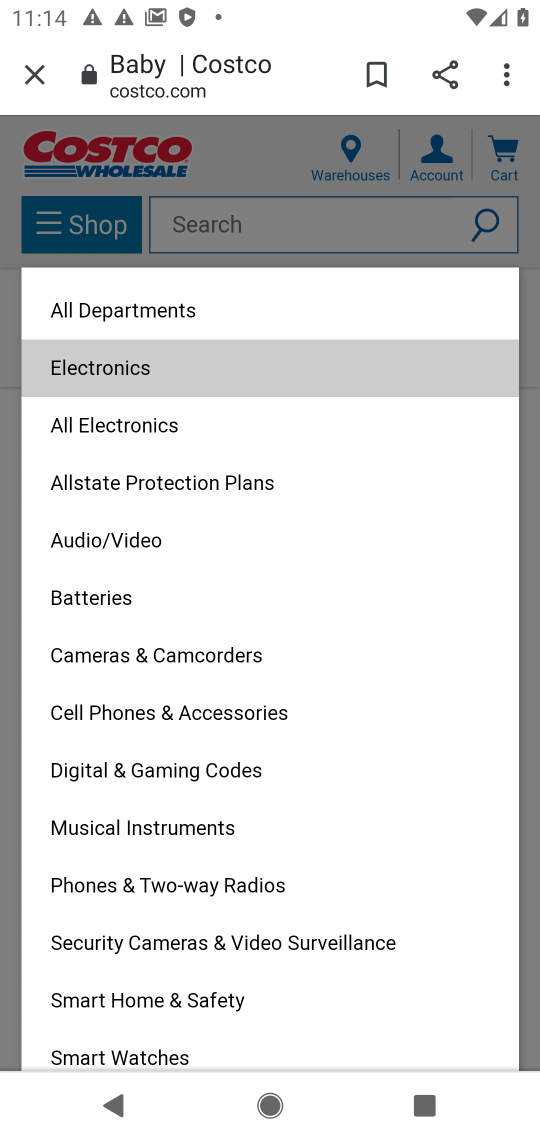
Step 51: task complete